Your task to perform on an android device: change the clock display to analog Image 0: 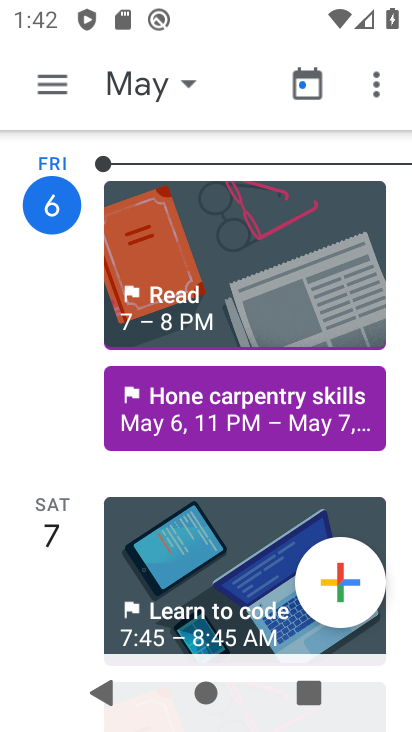
Step 0: press home button
Your task to perform on an android device: change the clock display to analog Image 1: 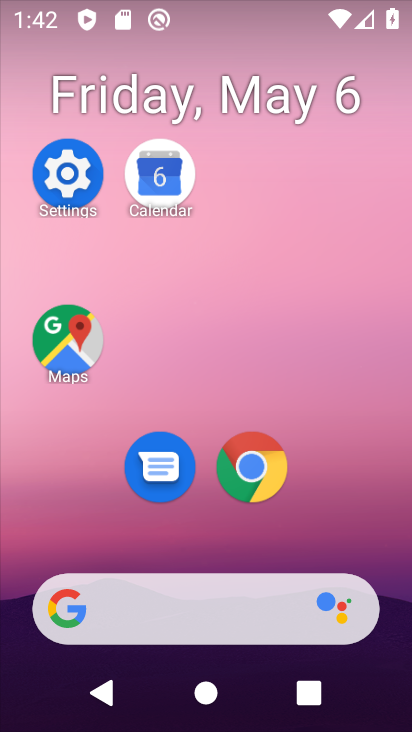
Step 1: drag from (329, 533) to (328, 110)
Your task to perform on an android device: change the clock display to analog Image 2: 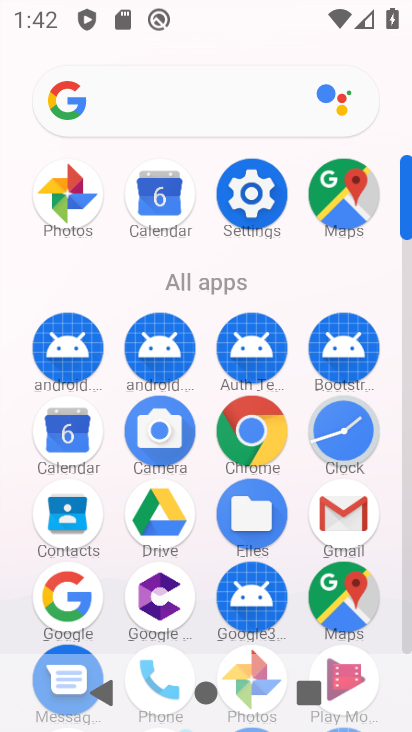
Step 2: drag from (355, 430) to (121, 187)
Your task to perform on an android device: change the clock display to analog Image 3: 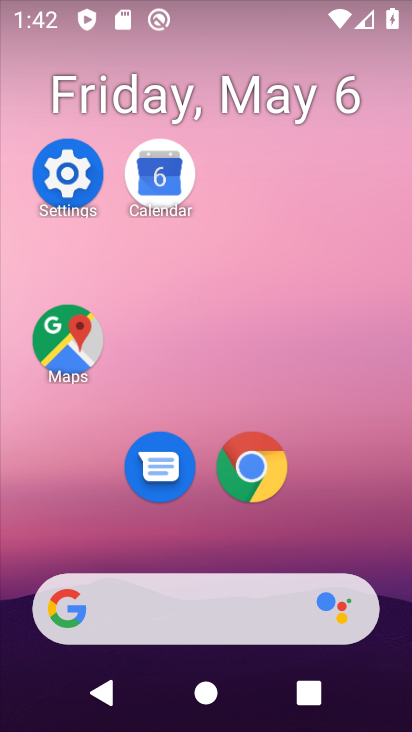
Step 3: drag from (284, 536) to (268, 138)
Your task to perform on an android device: change the clock display to analog Image 4: 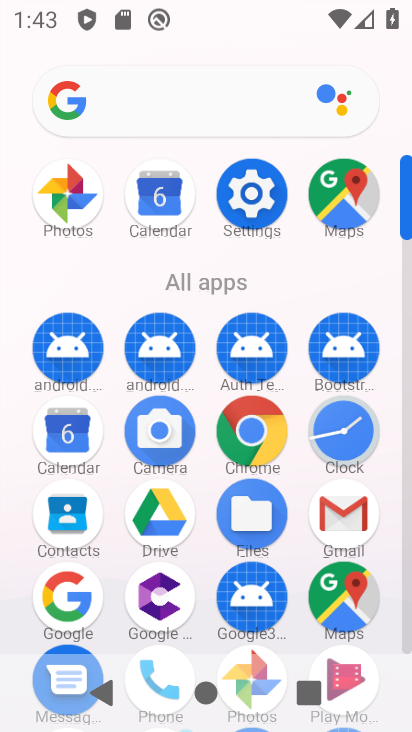
Step 4: click (337, 430)
Your task to perform on an android device: change the clock display to analog Image 5: 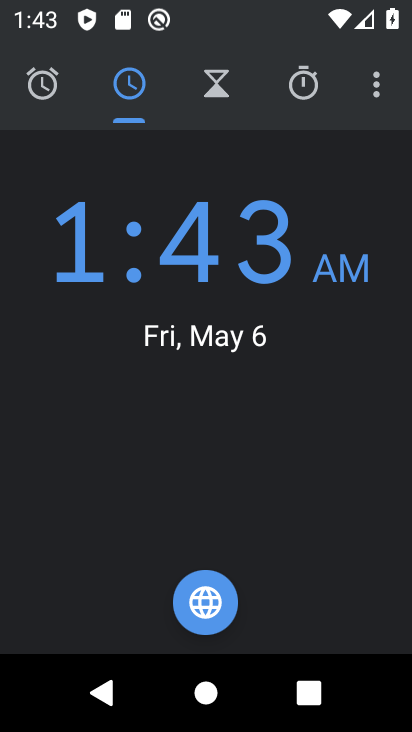
Step 5: click (372, 83)
Your task to perform on an android device: change the clock display to analog Image 6: 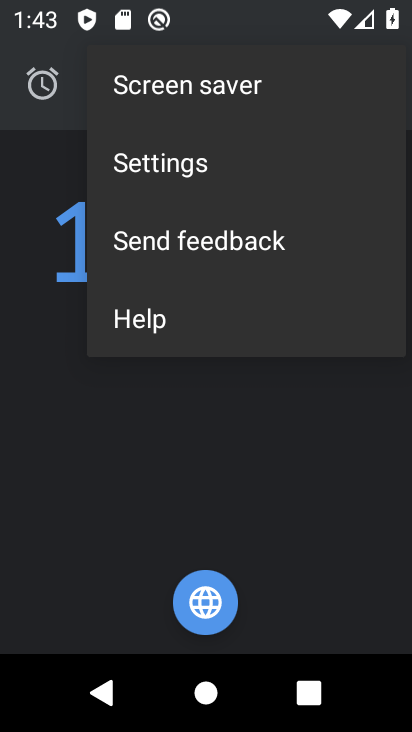
Step 6: click (199, 184)
Your task to perform on an android device: change the clock display to analog Image 7: 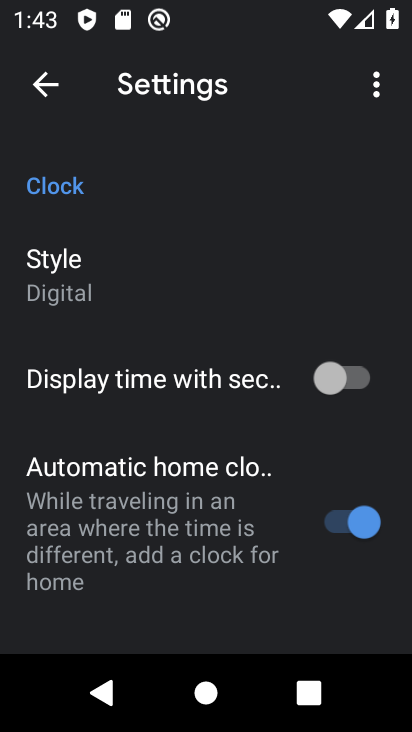
Step 7: click (81, 285)
Your task to perform on an android device: change the clock display to analog Image 8: 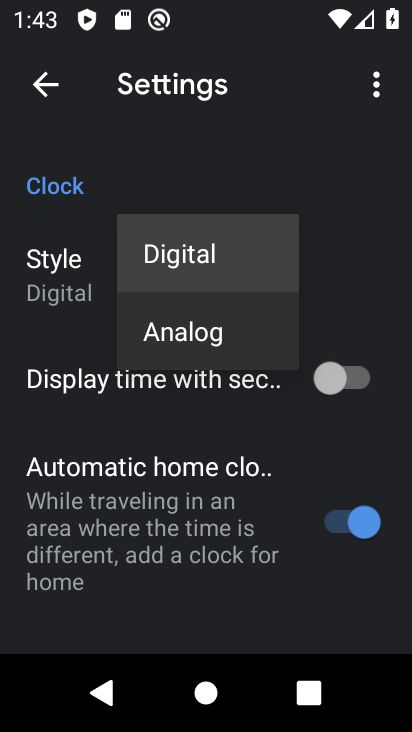
Step 8: click (247, 315)
Your task to perform on an android device: change the clock display to analog Image 9: 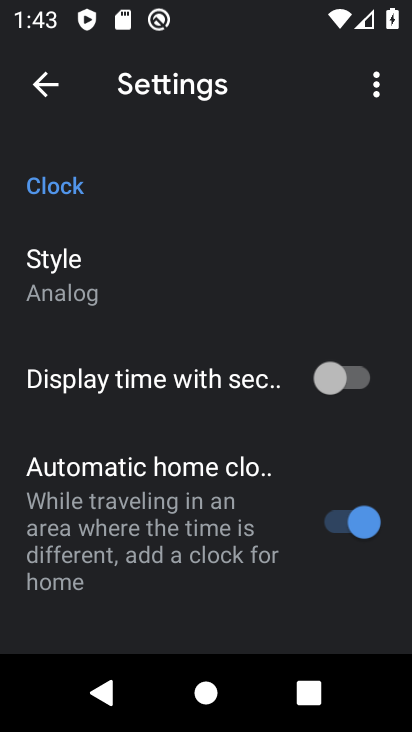
Step 9: task complete